Your task to perform on an android device: Open the calendar and show me this week's events Image 0: 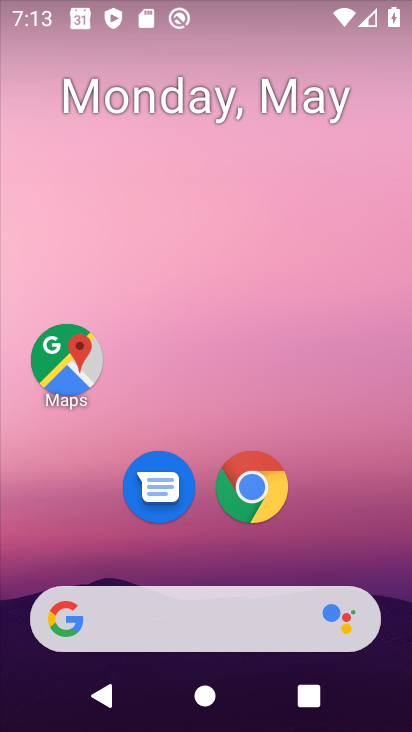
Step 0: drag from (261, 653) to (256, 156)
Your task to perform on an android device: Open the calendar and show me this week's events Image 1: 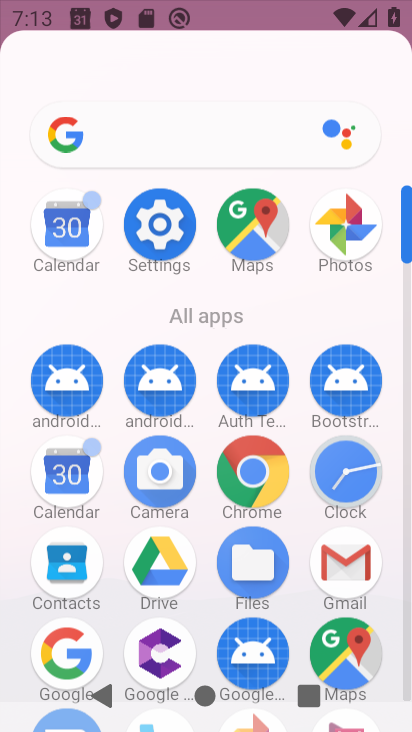
Step 1: click (256, 156)
Your task to perform on an android device: Open the calendar and show me this week's events Image 2: 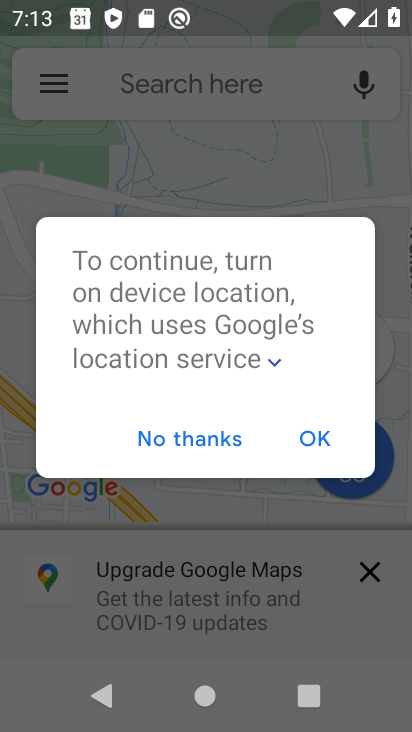
Step 2: click (307, 449)
Your task to perform on an android device: Open the calendar and show me this week's events Image 3: 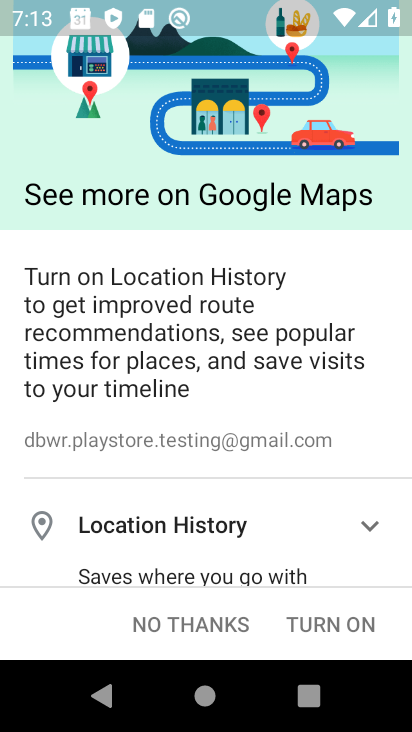
Step 3: press home button
Your task to perform on an android device: Open the calendar and show me this week's events Image 4: 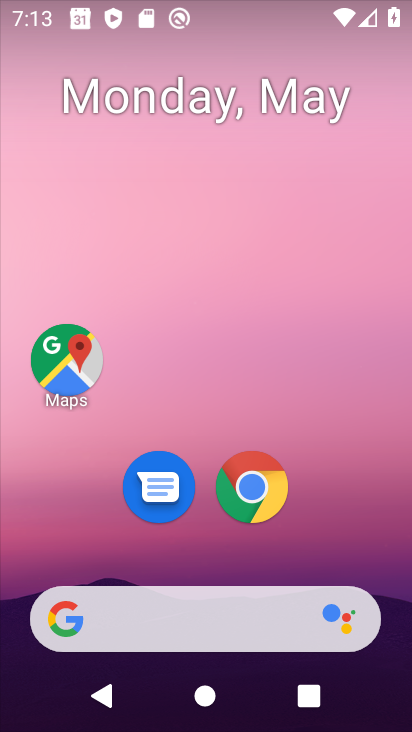
Step 4: drag from (232, 661) to (116, 241)
Your task to perform on an android device: Open the calendar and show me this week's events Image 5: 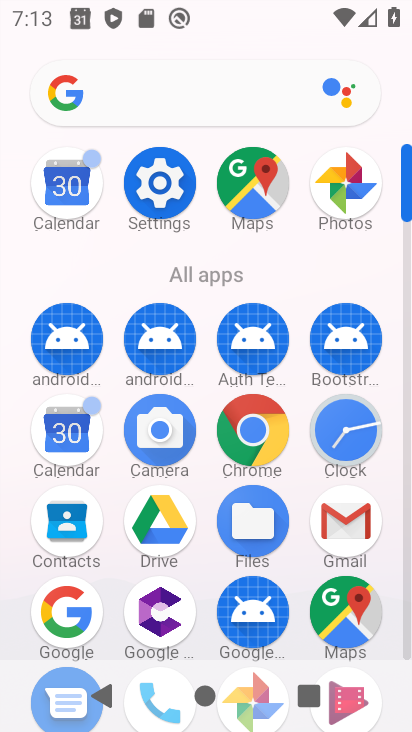
Step 5: click (54, 444)
Your task to perform on an android device: Open the calendar and show me this week's events Image 6: 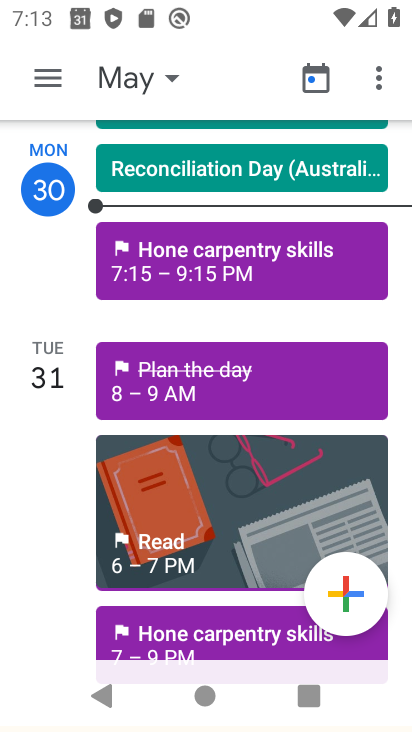
Step 6: click (58, 75)
Your task to perform on an android device: Open the calendar and show me this week's events Image 7: 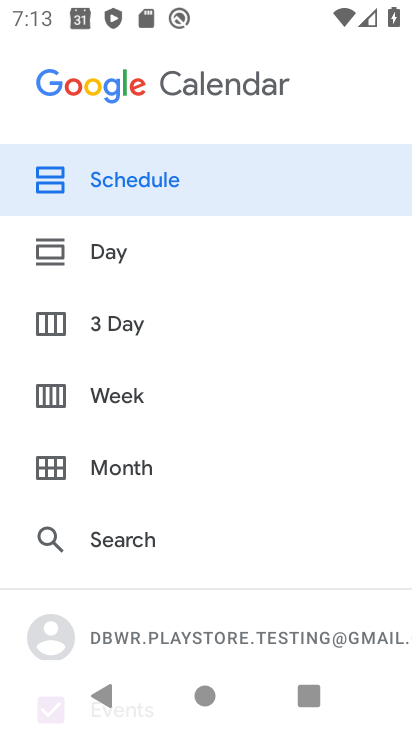
Step 7: click (128, 394)
Your task to perform on an android device: Open the calendar and show me this week's events Image 8: 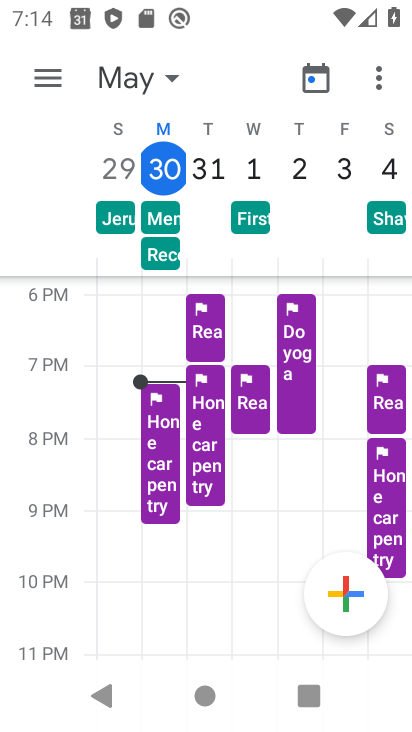
Step 8: task complete